Your task to perform on an android device: toggle airplane mode Image 0: 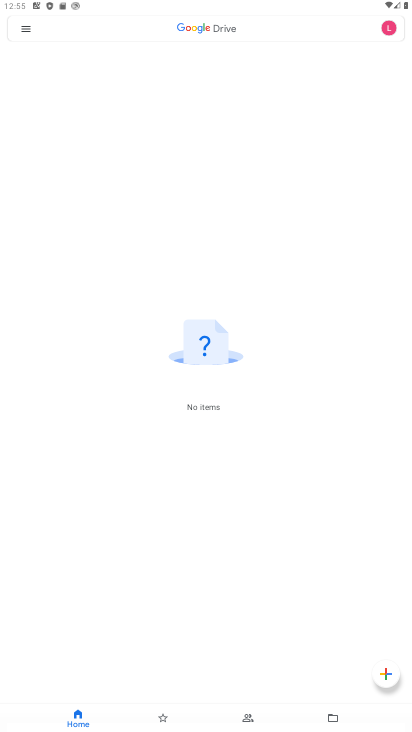
Step 0: click (161, 3)
Your task to perform on an android device: toggle airplane mode Image 1: 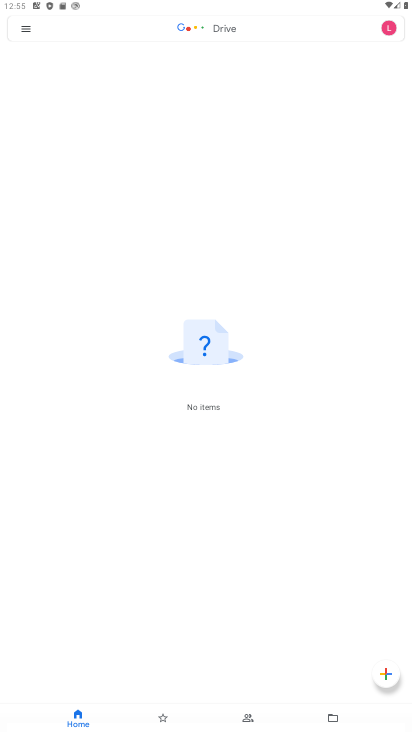
Step 1: drag from (278, 612) to (176, 83)
Your task to perform on an android device: toggle airplane mode Image 2: 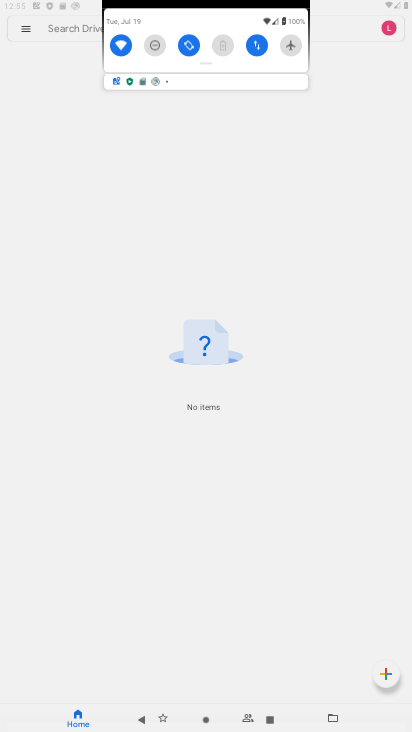
Step 2: drag from (305, 177) to (259, 32)
Your task to perform on an android device: toggle airplane mode Image 3: 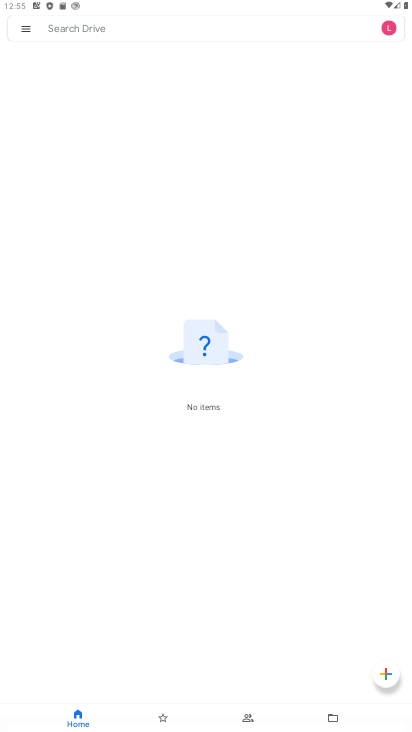
Step 3: press back button
Your task to perform on an android device: toggle airplane mode Image 4: 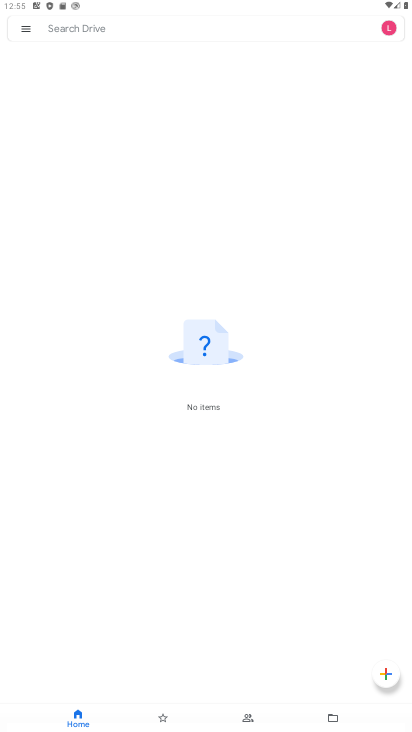
Step 4: press back button
Your task to perform on an android device: toggle airplane mode Image 5: 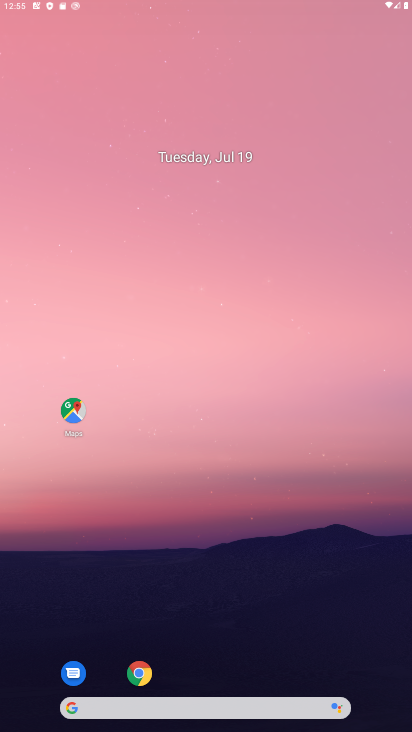
Step 5: press back button
Your task to perform on an android device: toggle airplane mode Image 6: 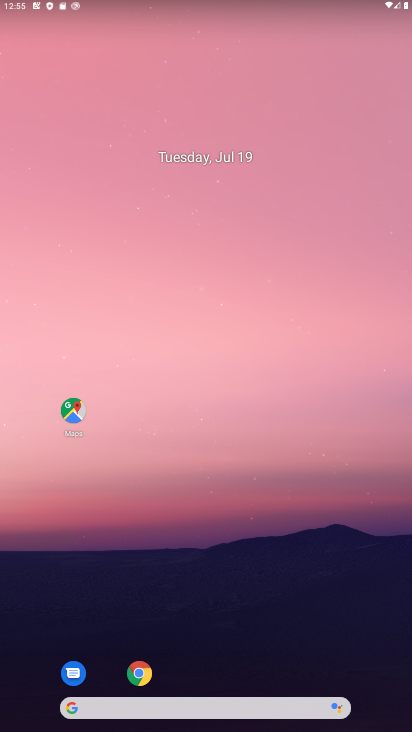
Step 6: drag from (171, 401) to (61, 0)
Your task to perform on an android device: toggle airplane mode Image 7: 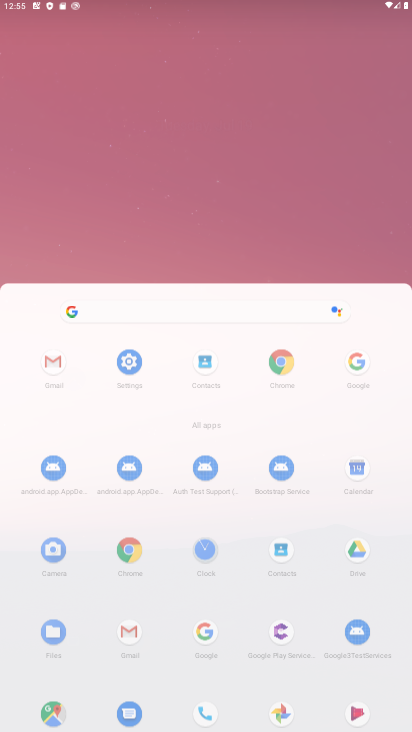
Step 7: drag from (112, 364) to (52, 34)
Your task to perform on an android device: toggle airplane mode Image 8: 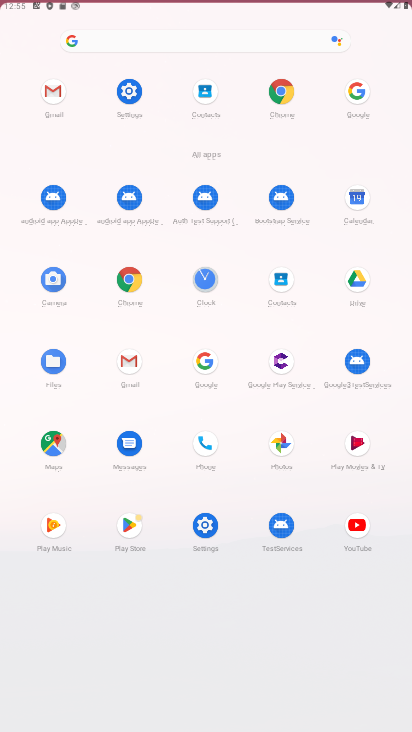
Step 8: drag from (155, 476) to (95, 102)
Your task to perform on an android device: toggle airplane mode Image 9: 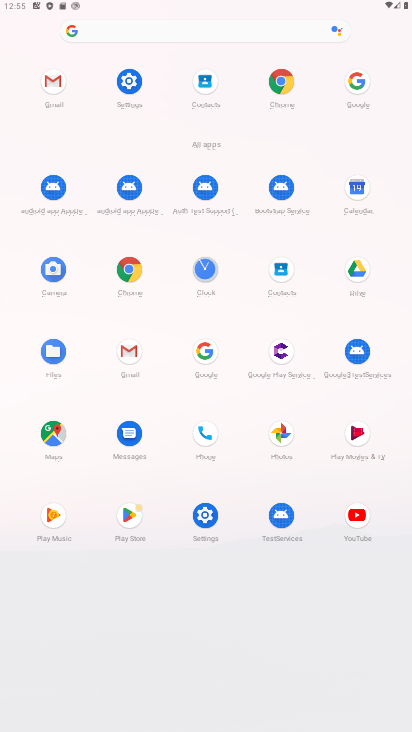
Step 9: click (122, 96)
Your task to perform on an android device: toggle airplane mode Image 10: 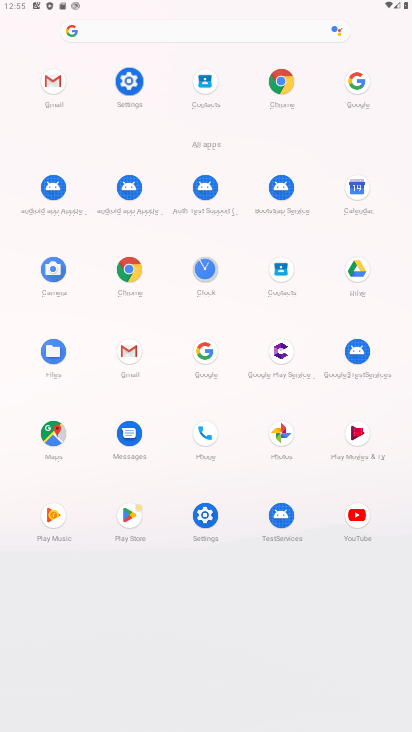
Step 10: click (122, 96)
Your task to perform on an android device: toggle airplane mode Image 11: 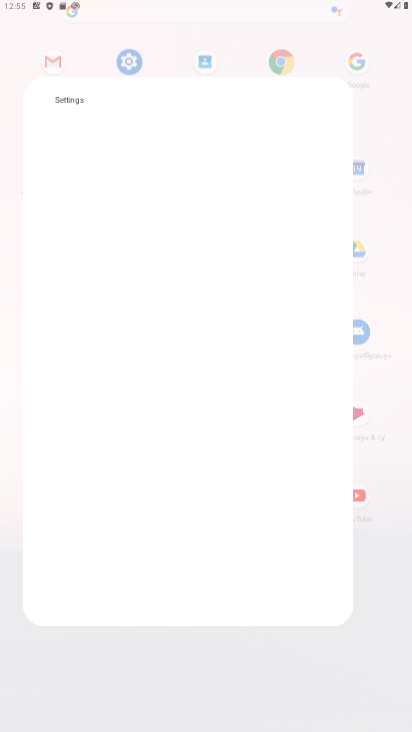
Step 11: click (130, 95)
Your task to perform on an android device: toggle airplane mode Image 12: 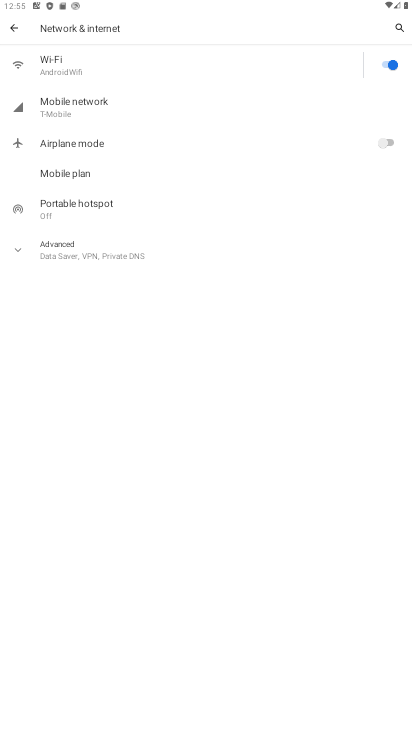
Step 12: click (382, 142)
Your task to perform on an android device: toggle airplane mode Image 13: 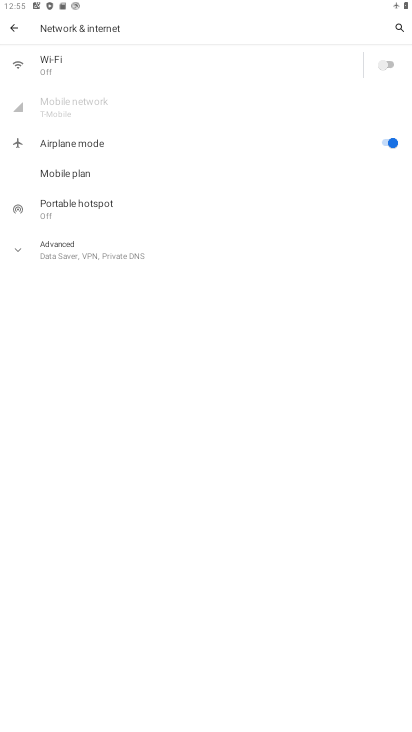
Step 13: task complete